Your task to perform on an android device: Open internet settings Image 0: 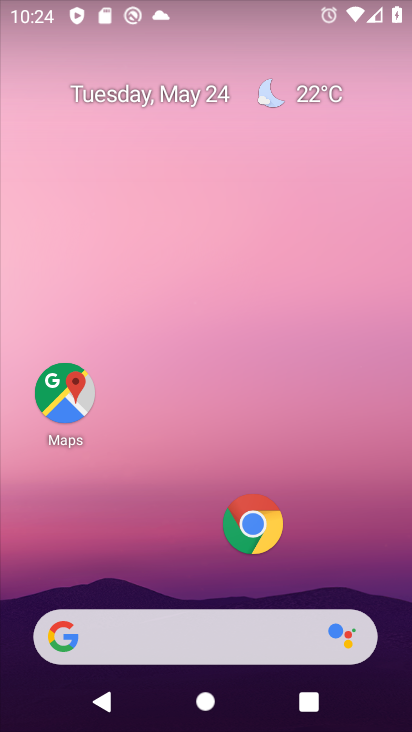
Step 0: drag from (224, 474) to (190, 14)
Your task to perform on an android device: Open internet settings Image 1: 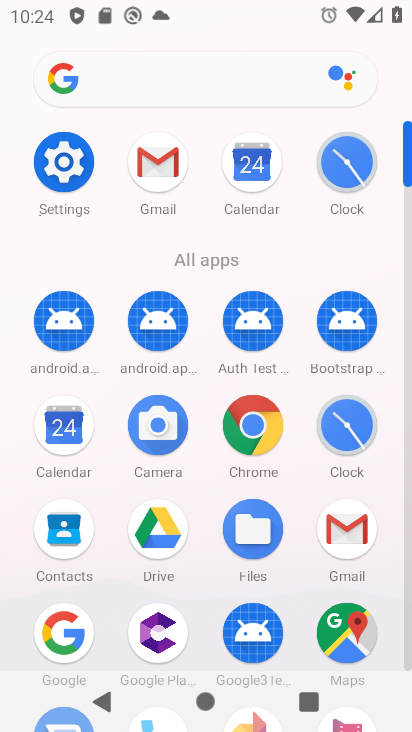
Step 1: click (84, 155)
Your task to perform on an android device: Open internet settings Image 2: 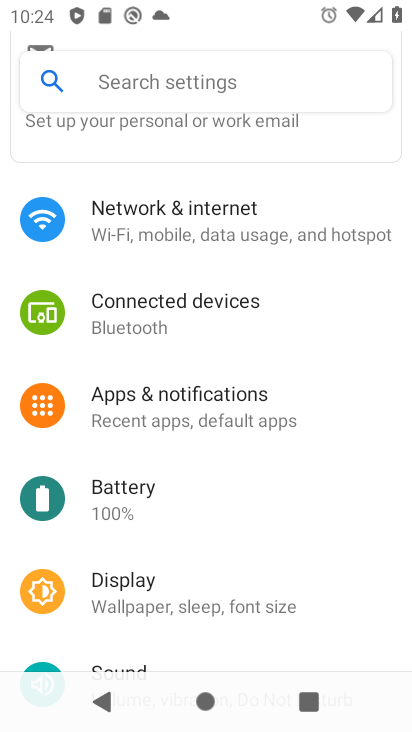
Step 2: click (215, 215)
Your task to perform on an android device: Open internet settings Image 3: 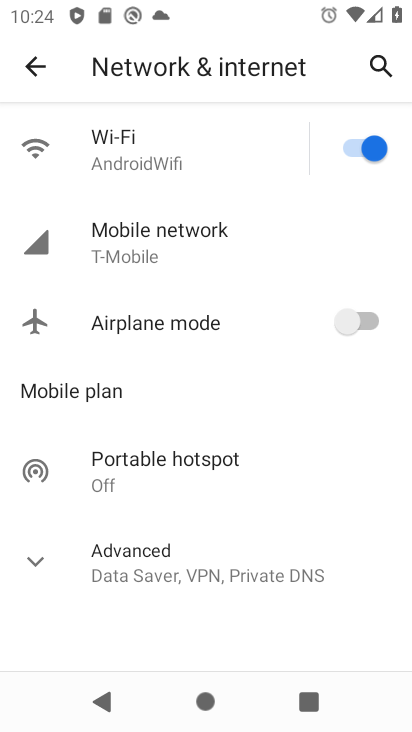
Step 3: task complete